Your task to perform on an android device: turn off priority inbox in the gmail app Image 0: 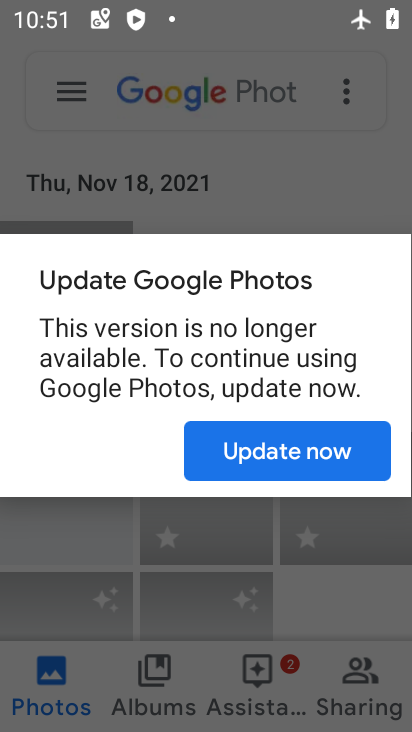
Step 0: press home button
Your task to perform on an android device: turn off priority inbox in the gmail app Image 1: 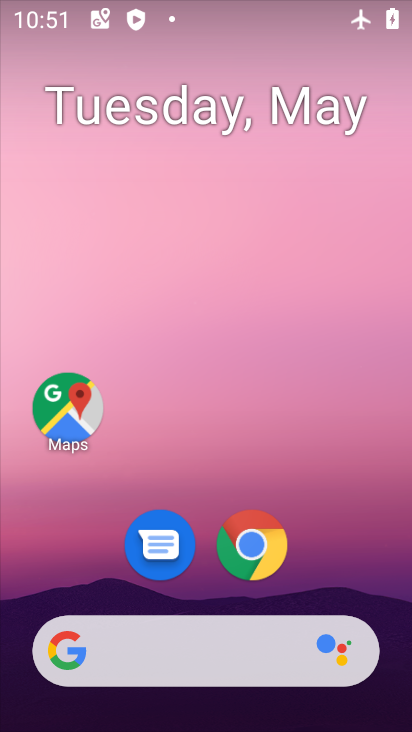
Step 1: drag from (229, 573) to (282, 184)
Your task to perform on an android device: turn off priority inbox in the gmail app Image 2: 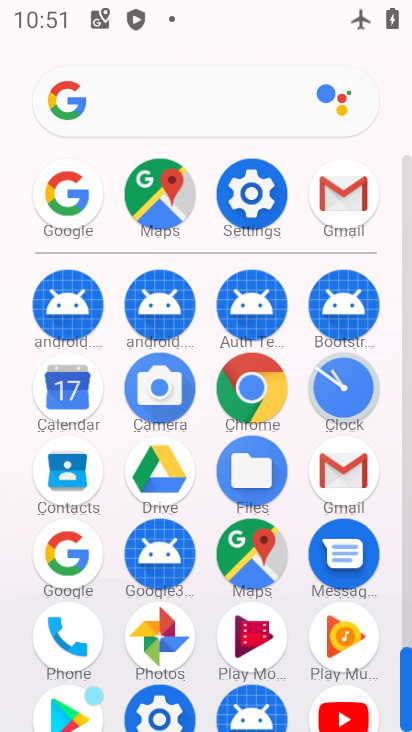
Step 2: click (353, 217)
Your task to perform on an android device: turn off priority inbox in the gmail app Image 3: 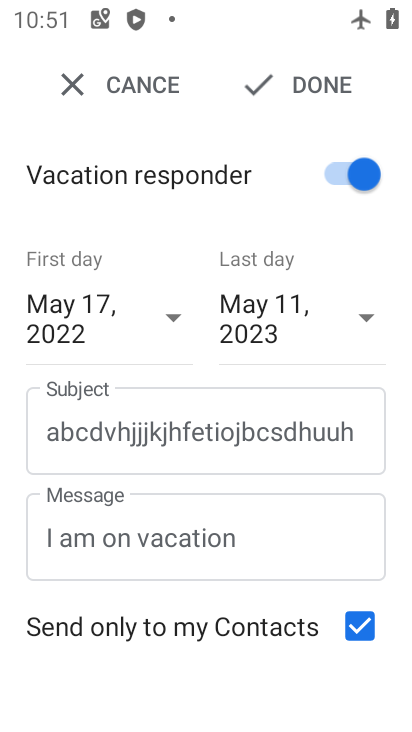
Step 3: click (74, 79)
Your task to perform on an android device: turn off priority inbox in the gmail app Image 4: 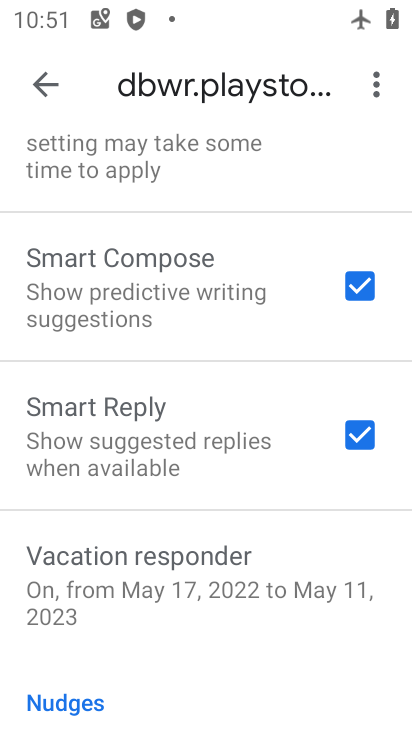
Step 4: drag from (193, 456) to (232, 723)
Your task to perform on an android device: turn off priority inbox in the gmail app Image 5: 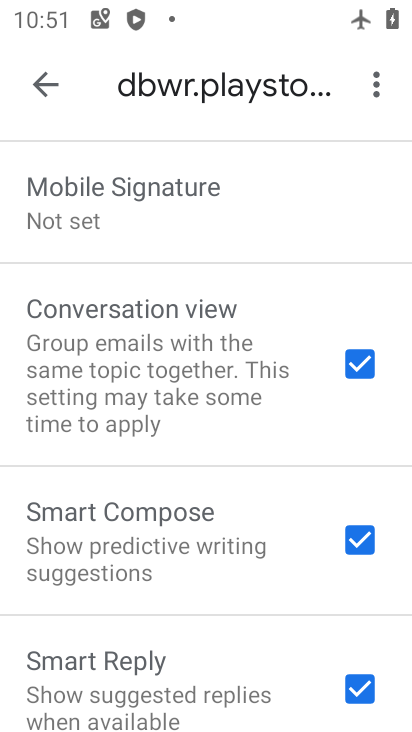
Step 5: drag from (146, 372) to (139, 707)
Your task to perform on an android device: turn off priority inbox in the gmail app Image 6: 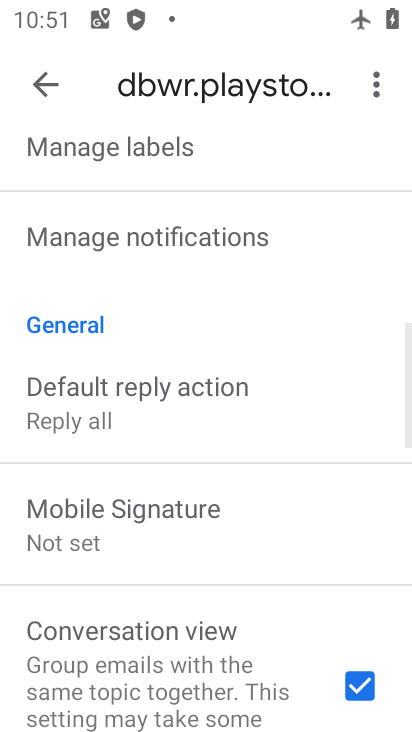
Step 6: drag from (112, 457) to (123, 725)
Your task to perform on an android device: turn off priority inbox in the gmail app Image 7: 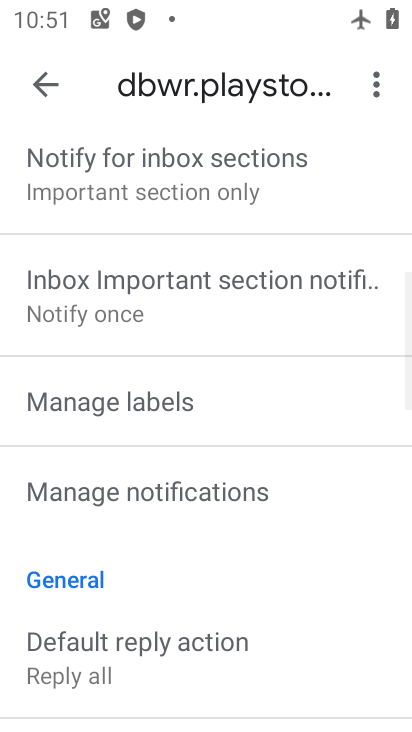
Step 7: drag from (96, 471) to (99, 712)
Your task to perform on an android device: turn off priority inbox in the gmail app Image 8: 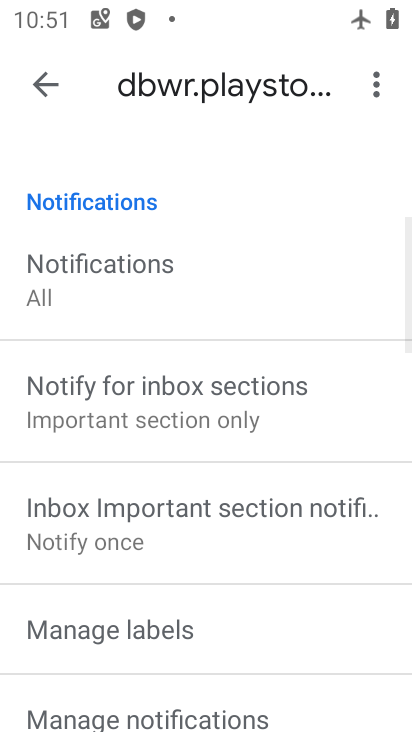
Step 8: drag from (92, 396) to (104, 687)
Your task to perform on an android device: turn off priority inbox in the gmail app Image 9: 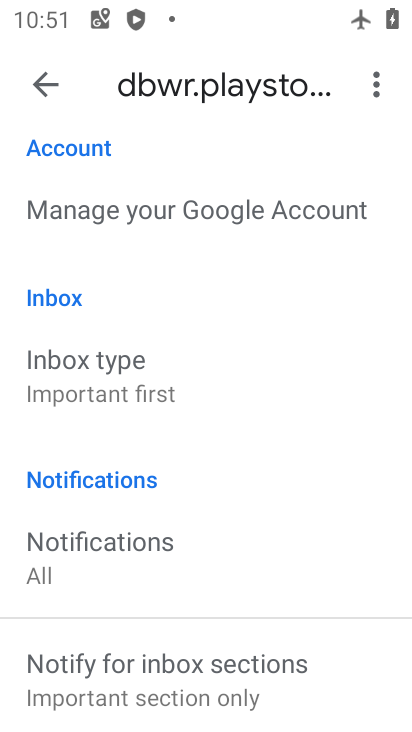
Step 9: click (110, 374)
Your task to perform on an android device: turn off priority inbox in the gmail app Image 10: 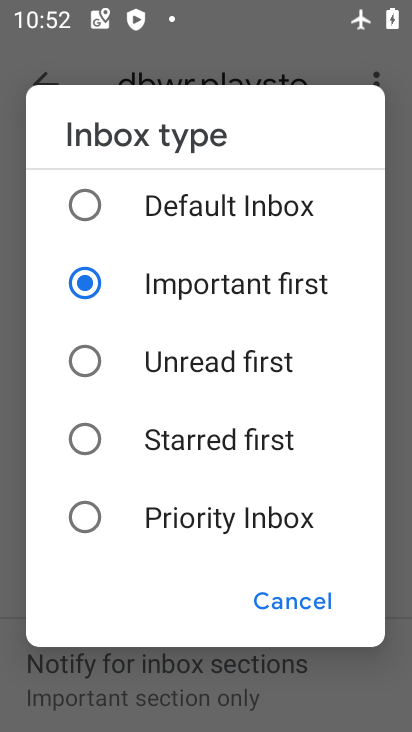
Step 10: click (66, 342)
Your task to perform on an android device: turn off priority inbox in the gmail app Image 11: 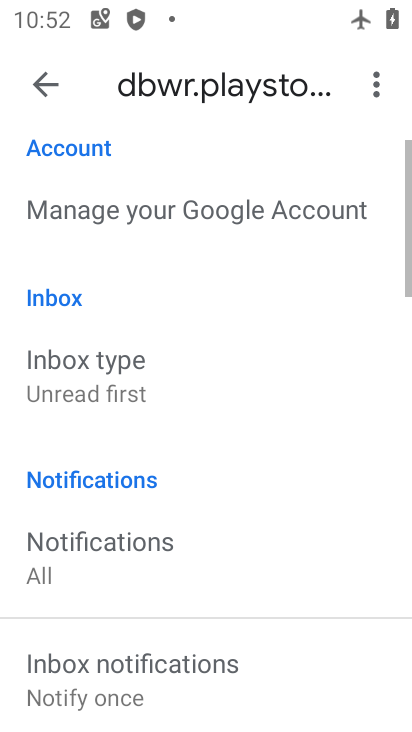
Step 11: task complete